Your task to perform on an android device: Go to sound settings Image 0: 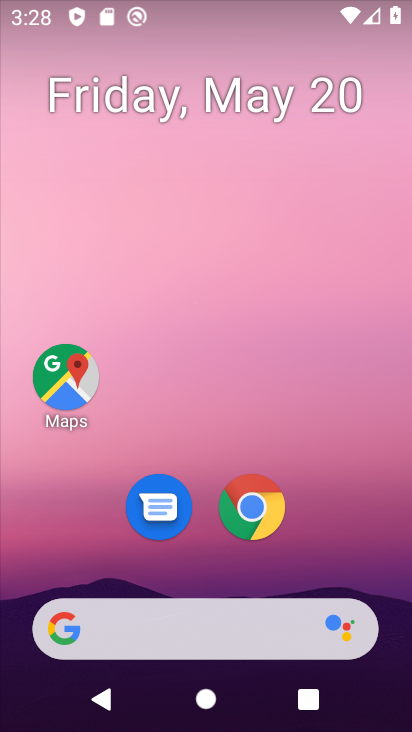
Step 0: drag from (328, 519) to (251, 123)
Your task to perform on an android device: Go to sound settings Image 1: 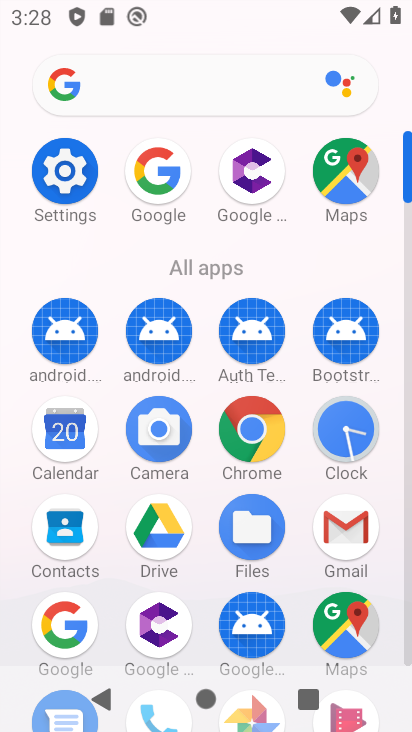
Step 1: click (68, 169)
Your task to perform on an android device: Go to sound settings Image 2: 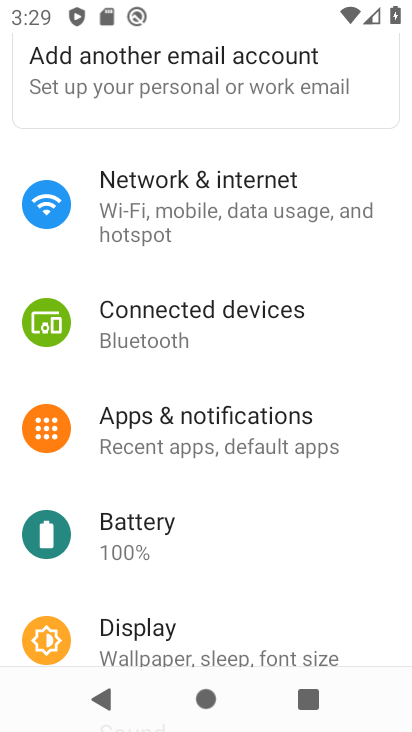
Step 2: drag from (217, 519) to (238, 388)
Your task to perform on an android device: Go to sound settings Image 3: 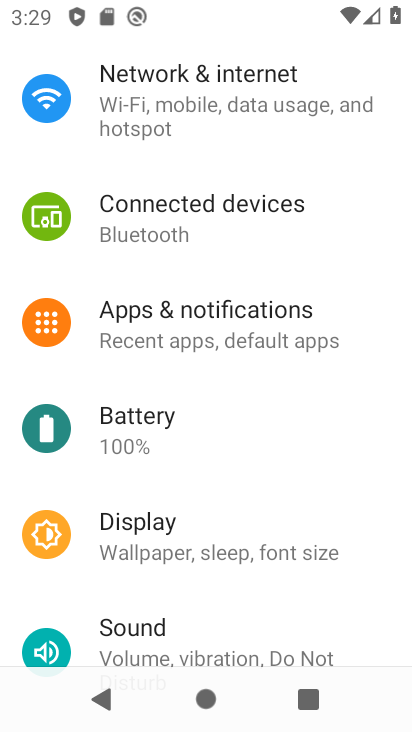
Step 3: drag from (199, 599) to (255, 493)
Your task to perform on an android device: Go to sound settings Image 4: 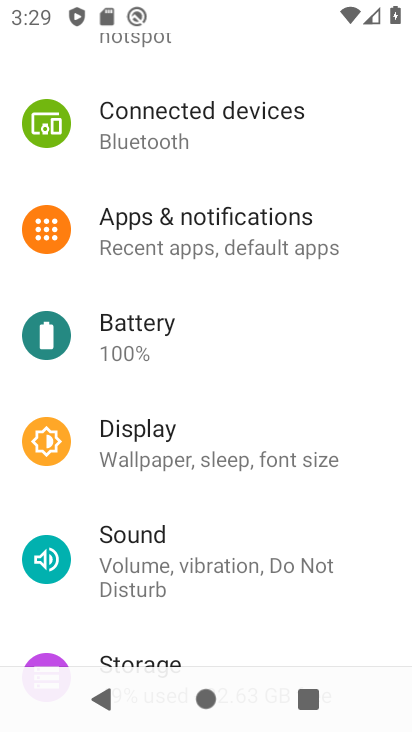
Step 4: drag from (198, 598) to (258, 515)
Your task to perform on an android device: Go to sound settings Image 5: 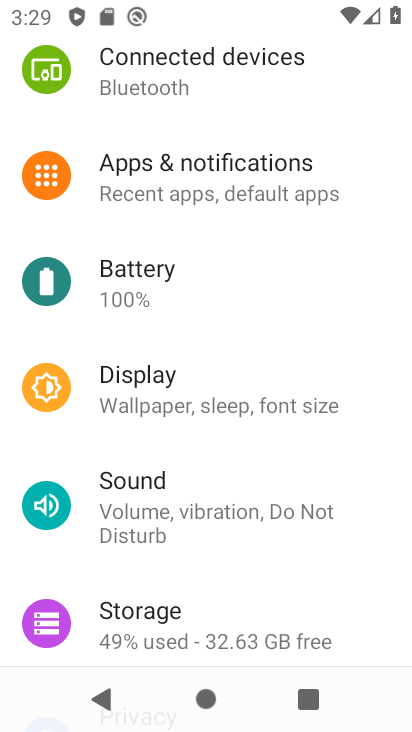
Step 5: click (241, 508)
Your task to perform on an android device: Go to sound settings Image 6: 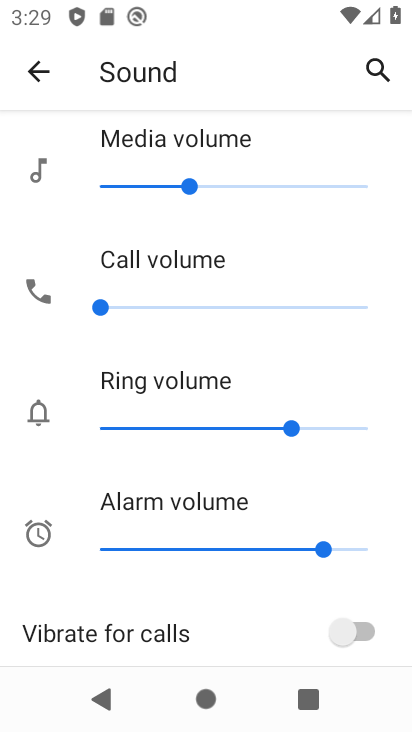
Step 6: task complete